Your task to perform on an android device: Go to CNN.com Image 0: 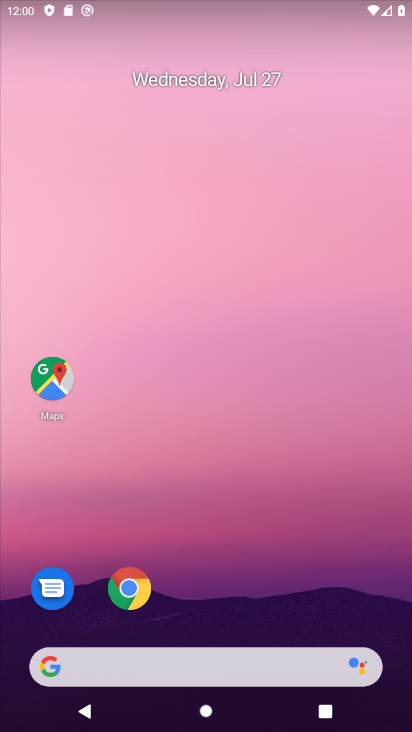
Step 0: click (114, 658)
Your task to perform on an android device: Go to CNN.com Image 1: 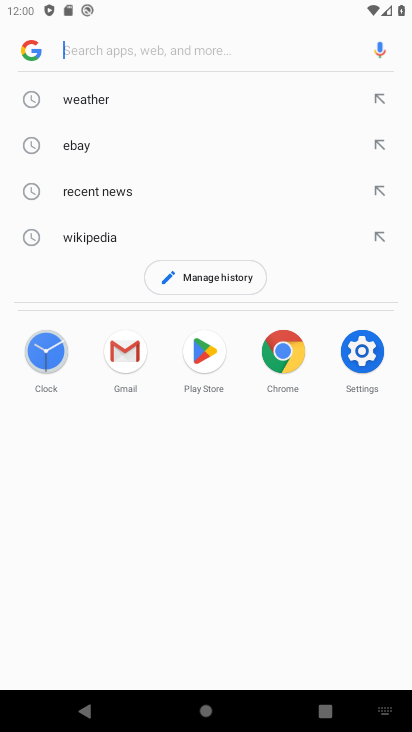
Step 1: type "CNN.com"
Your task to perform on an android device: Go to CNN.com Image 2: 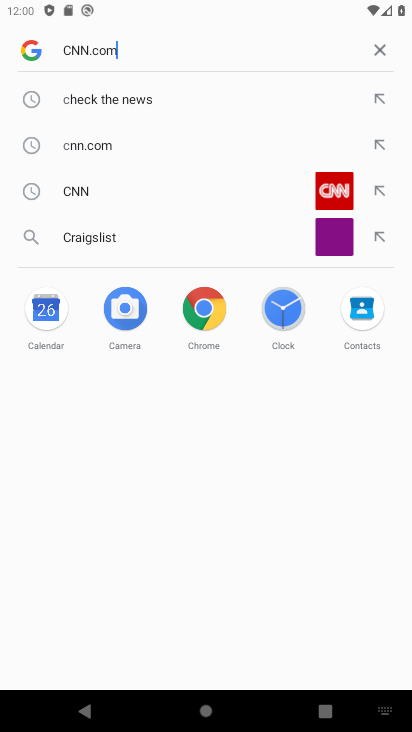
Step 2: type ""
Your task to perform on an android device: Go to CNN.com Image 3: 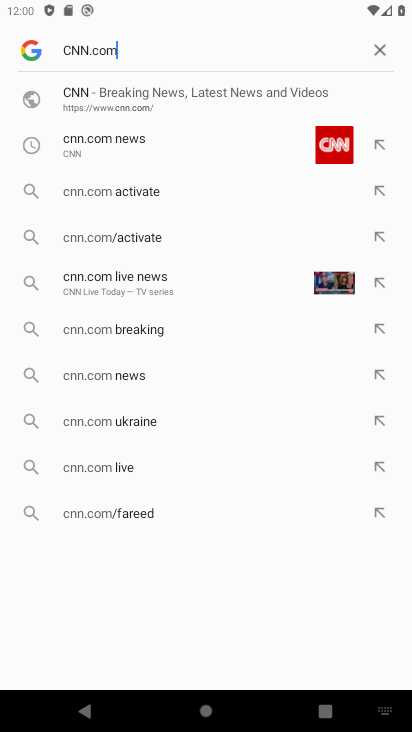
Step 3: click (65, 94)
Your task to perform on an android device: Go to CNN.com Image 4: 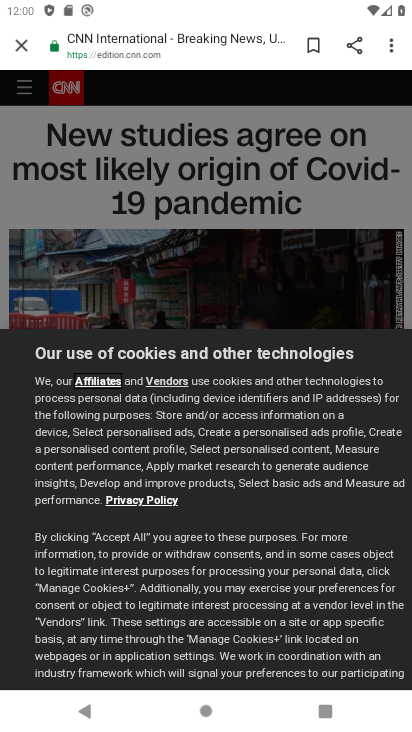
Step 4: task complete